Your task to perform on an android device: Go to calendar. Show me events next week Image 0: 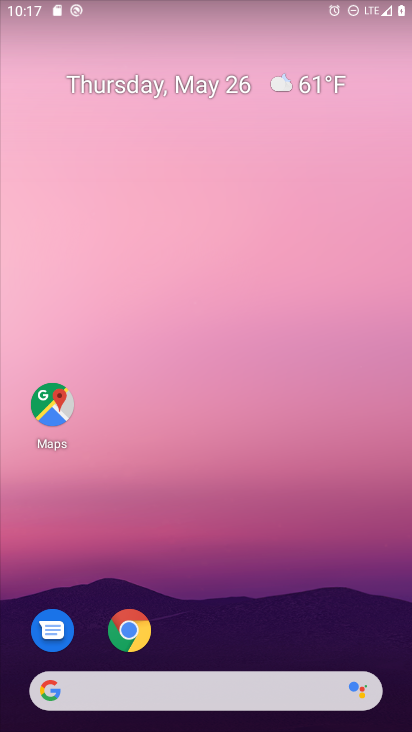
Step 0: drag from (222, 648) to (130, 122)
Your task to perform on an android device: Go to calendar. Show me events next week Image 1: 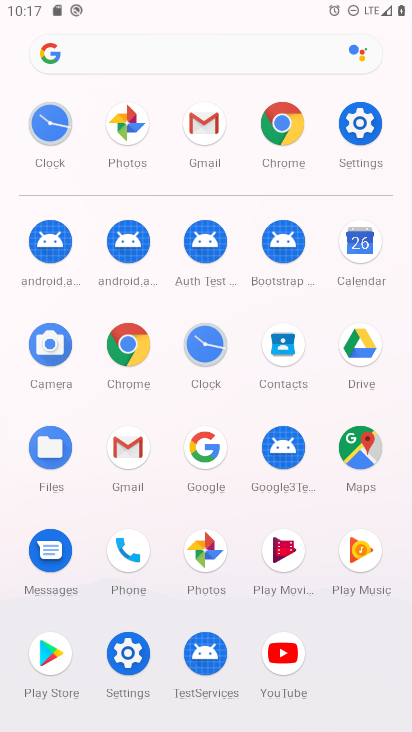
Step 1: click (358, 219)
Your task to perform on an android device: Go to calendar. Show me events next week Image 2: 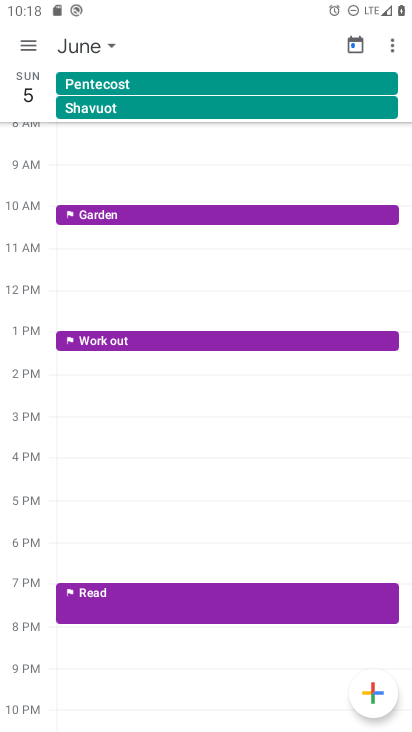
Step 2: click (23, 44)
Your task to perform on an android device: Go to calendar. Show me events next week Image 3: 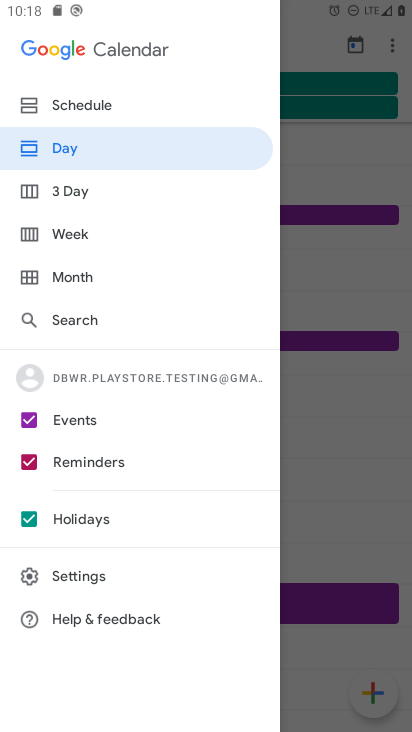
Step 3: click (68, 222)
Your task to perform on an android device: Go to calendar. Show me events next week Image 4: 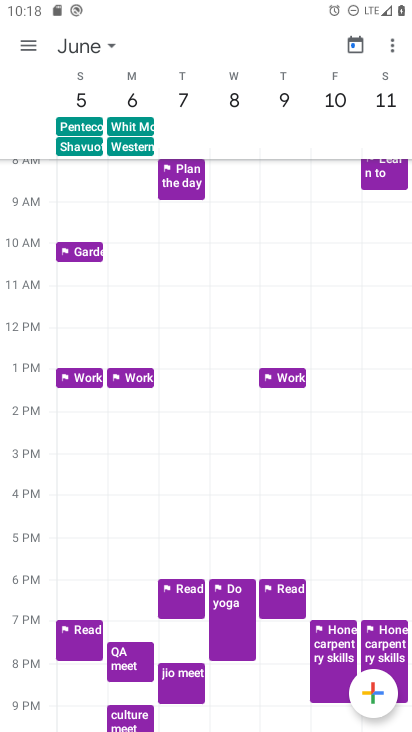
Step 4: task complete